Your task to perform on an android device: What's the weather going to be this weekend? Image 0: 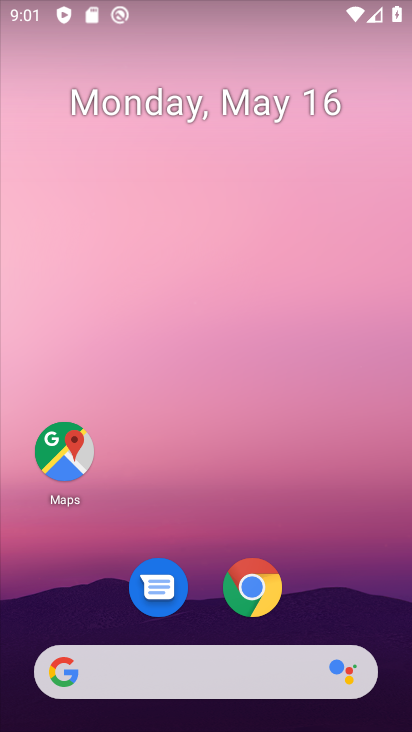
Step 0: drag from (1, 325) to (411, 276)
Your task to perform on an android device: What's the weather going to be this weekend? Image 1: 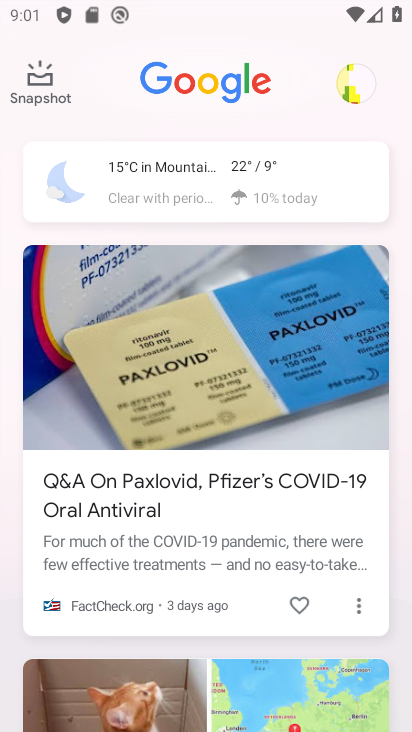
Step 1: click (264, 193)
Your task to perform on an android device: What's the weather going to be this weekend? Image 2: 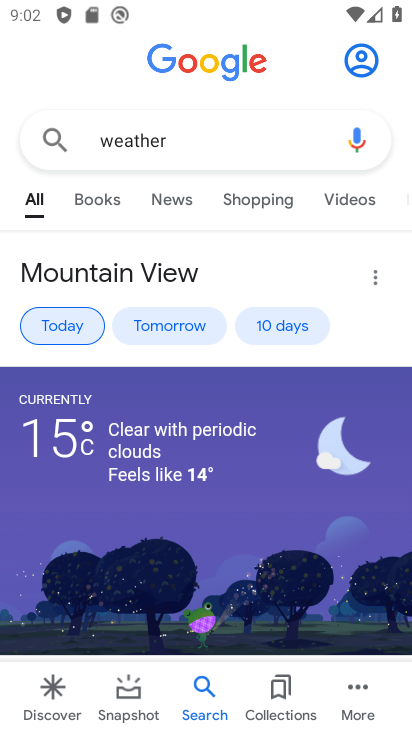
Step 2: click (297, 334)
Your task to perform on an android device: What's the weather going to be this weekend? Image 3: 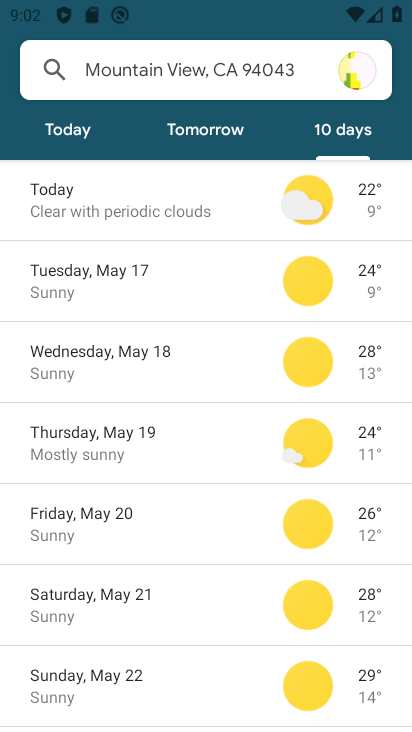
Step 3: task complete